Your task to perform on an android device: Show me productivity apps on the Play Store Image 0: 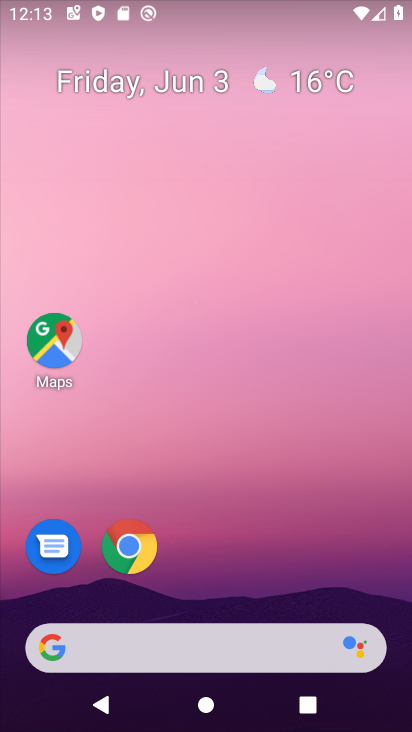
Step 0: drag from (208, 554) to (129, 182)
Your task to perform on an android device: Show me productivity apps on the Play Store Image 1: 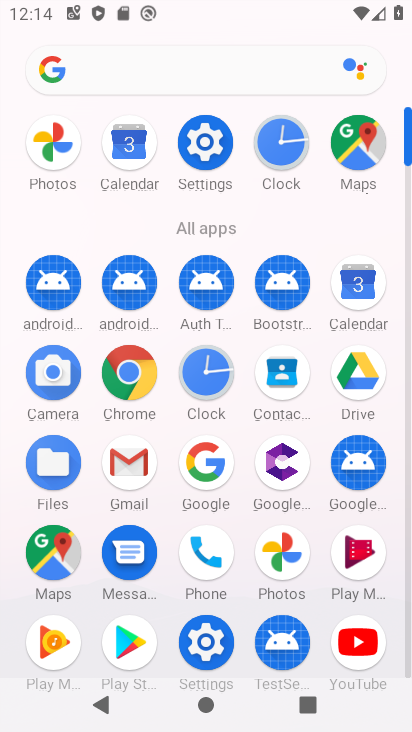
Step 1: click (133, 649)
Your task to perform on an android device: Show me productivity apps on the Play Store Image 2: 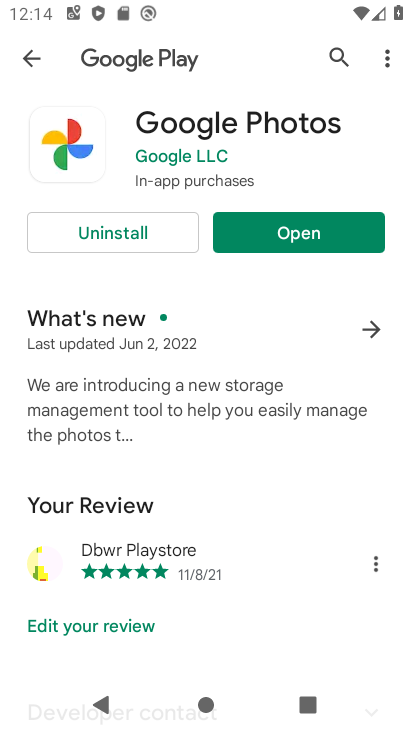
Step 2: click (35, 53)
Your task to perform on an android device: Show me productivity apps on the Play Store Image 3: 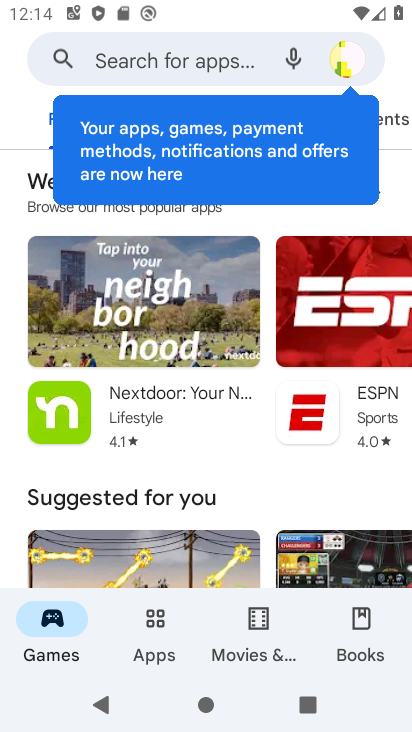
Step 3: click (156, 631)
Your task to perform on an android device: Show me productivity apps on the Play Store Image 4: 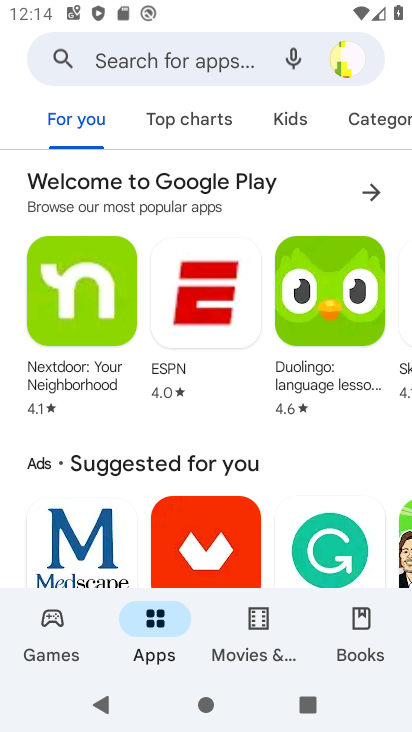
Step 4: task complete